Your task to perform on an android device: open app "LiveIn - Share Your Moment" Image 0: 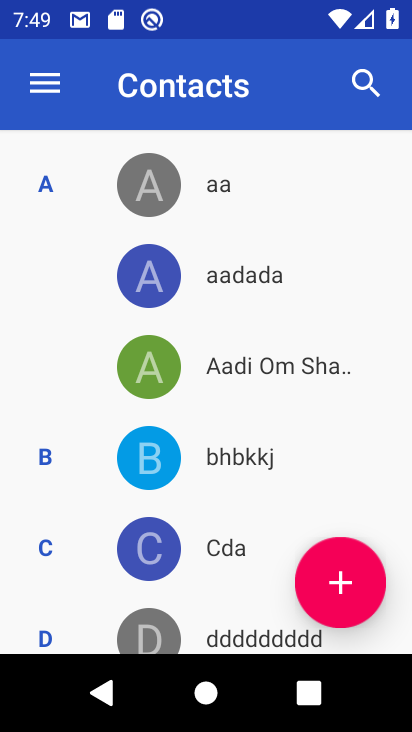
Step 0: press home button
Your task to perform on an android device: open app "LiveIn - Share Your Moment" Image 1: 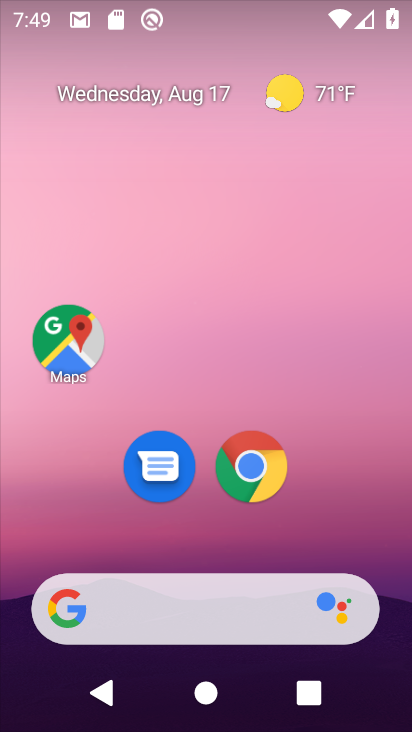
Step 1: drag from (196, 548) to (224, 119)
Your task to perform on an android device: open app "LiveIn - Share Your Moment" Image 2: 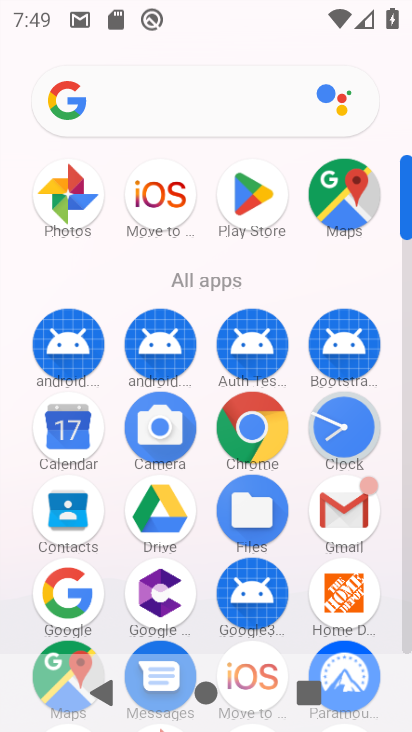
Step 2: click (265, 188)
Your task to perform on an android device: open app "LiveIn - Share Your Moment" Image 3: 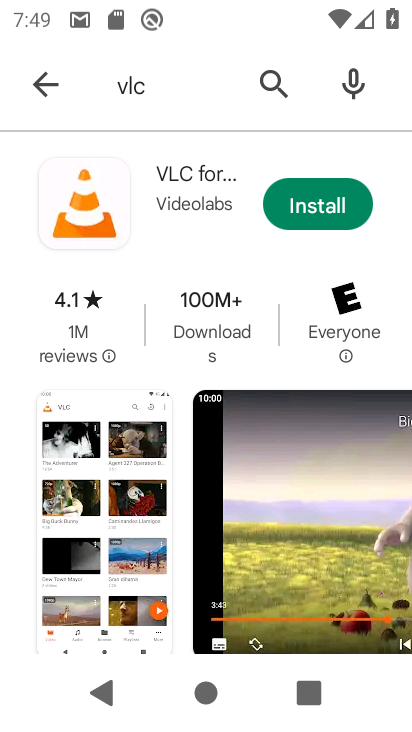
Step 3: click (185, 103)
Your task to perform on an android device: open app "LiveIn - Share Your Moment" Image 4: 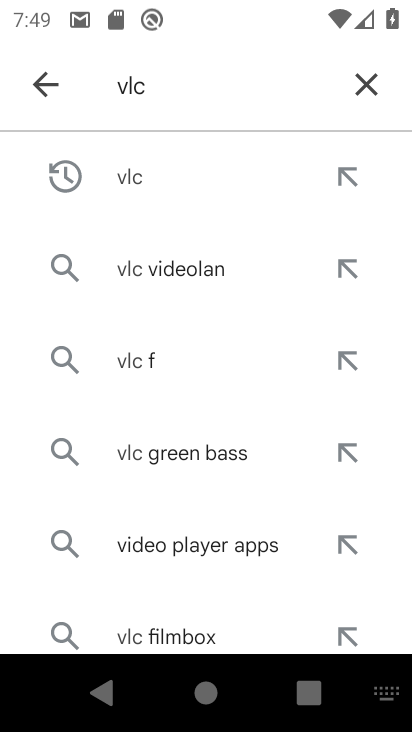
Step 4: click (368, 81)
Your task to perform on an android device: open app "LiveIn - Share Your Moment" Image 5: 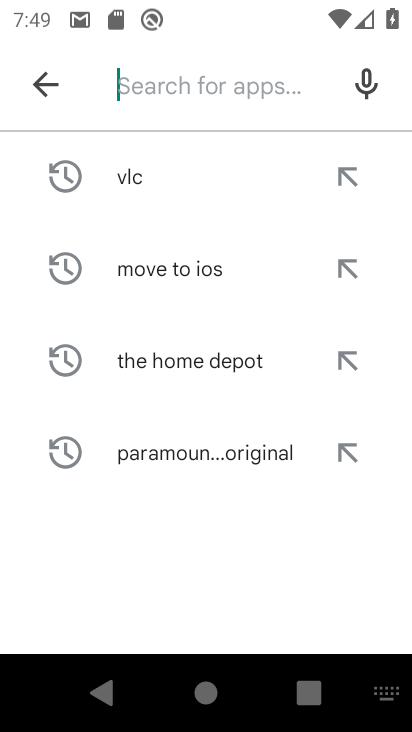
Step 5: type "LiveIn"
Your task to perform on an android device: open app "LiveIn - Share Your Moment" Image 6: 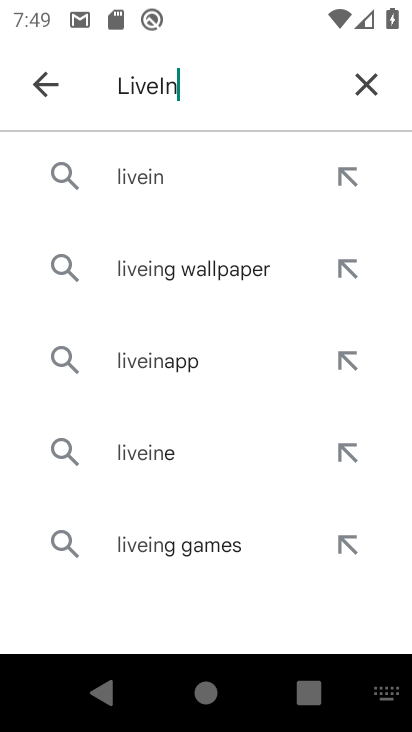
Step 6: click (178, 188)
Your task to perform on an android device: open app "LiveIn - Share Your Moment" Image 7: 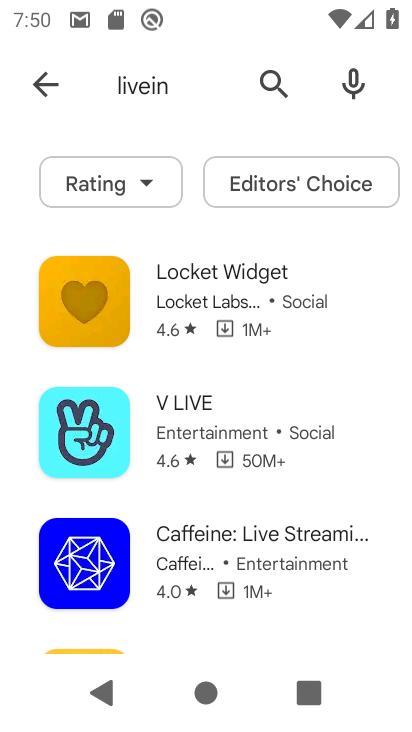
Step 7: task complete